Your task to perform on an android device: turn off picture-in-picture Image 0: 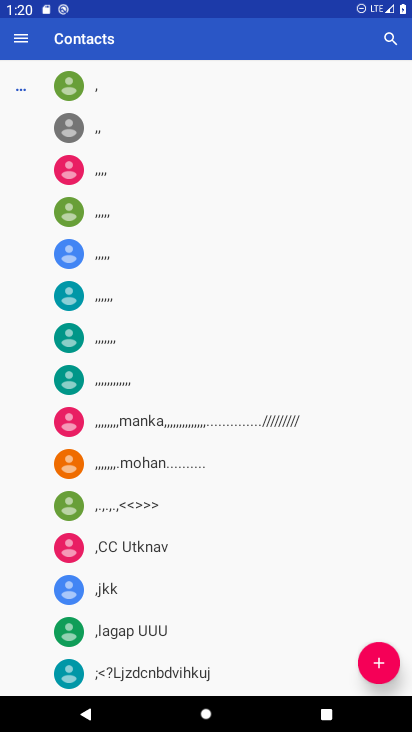
Step 0: press home button
Your task to perform on an android device: turn off picture-in-picture Image 1: 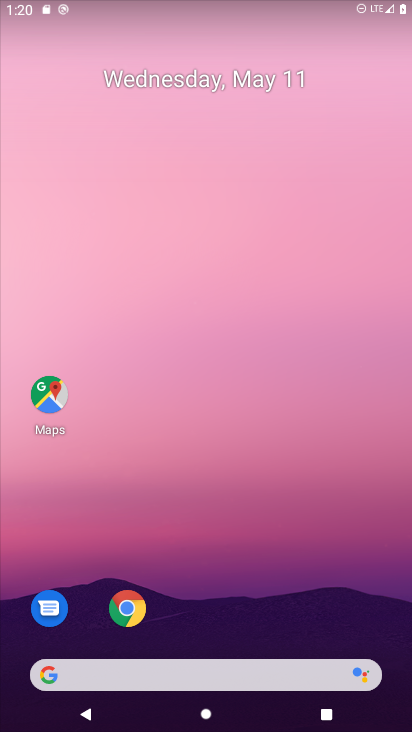
Step 1: click (131, 610)
Your task to perform on an android device: turn off picture-in-picture Image 2: 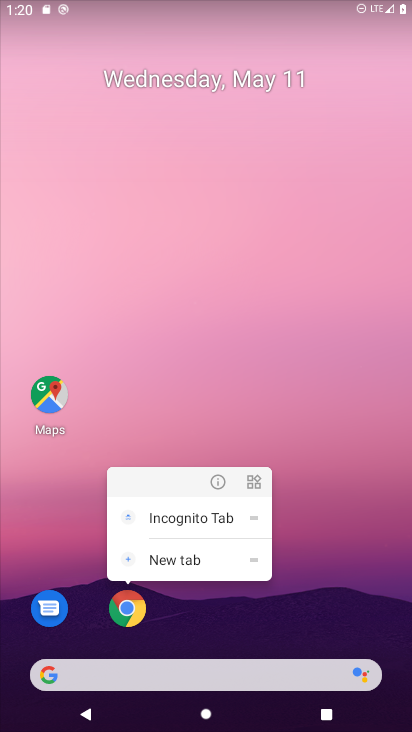
Step 2: click (217, 474)
Your task to perform on an android device: turn off picture-in-picture Image 3: 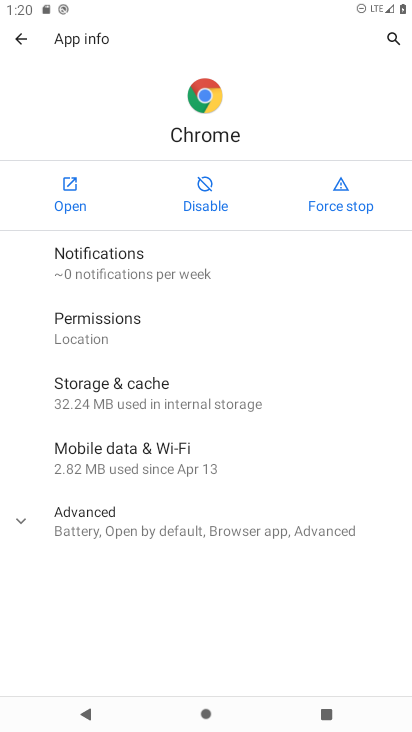
Step 3: click (18, 518)
Your task to perform on an android device: turn off picture-in-picture Image 4: 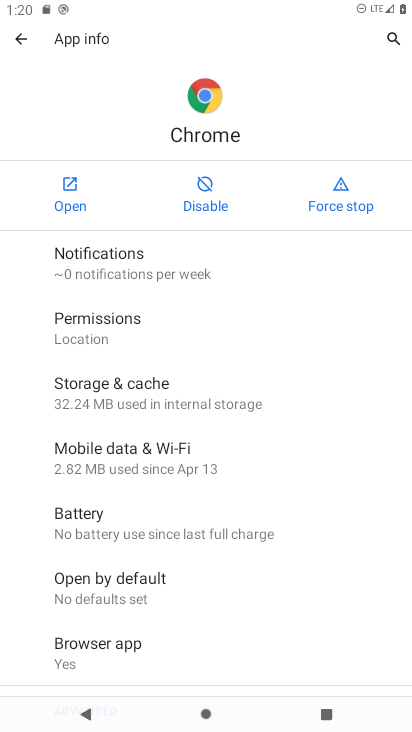
Step 4: drag from (235, 584) to (224, 295)
Your task to perform on an android device: turn off picture-in-picture Image 5: 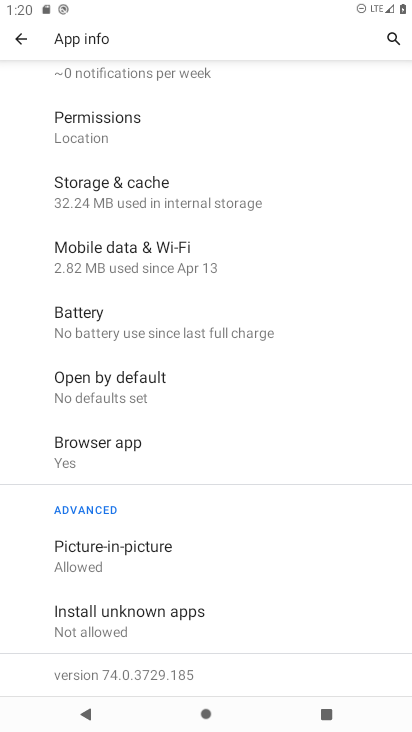
Step 5: click (212, 562)
Your task to perform on an android device: turn off picture-in-picture Image 6: 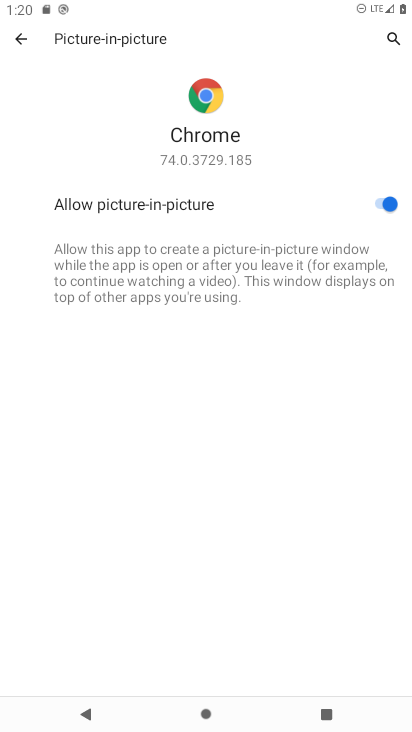
Step 6: click (386, 193)
Your task to perform on an android device: turn off picture-in-picture Image 7: 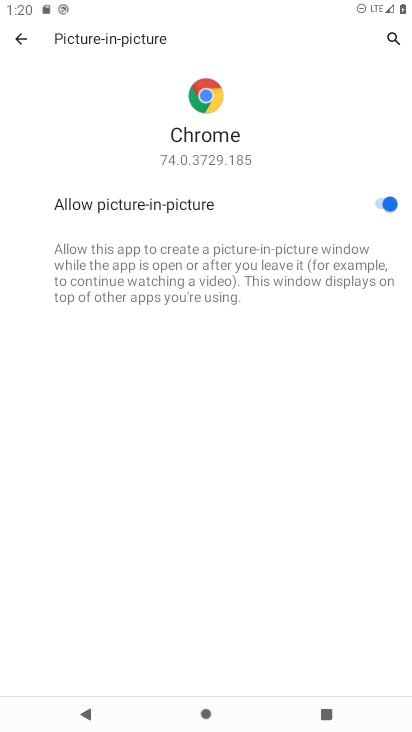
Step 7: click (384, 203)
Your task to perform on an android device: turn off picture-in-picture Image 8: 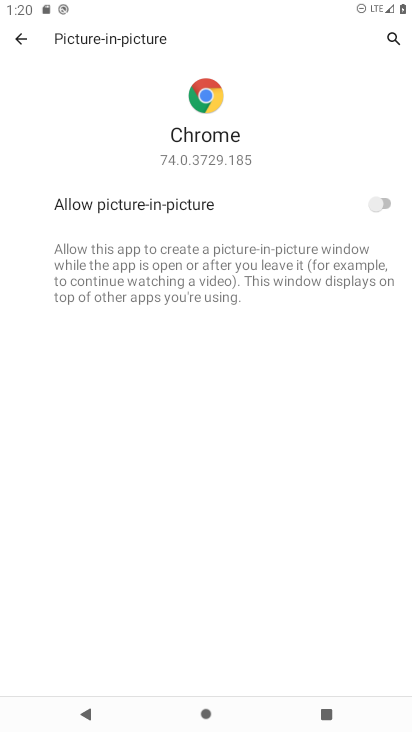
Step 8: task complete